Your task to perform on an android device: turn pop-ups off in chrome Image 0: 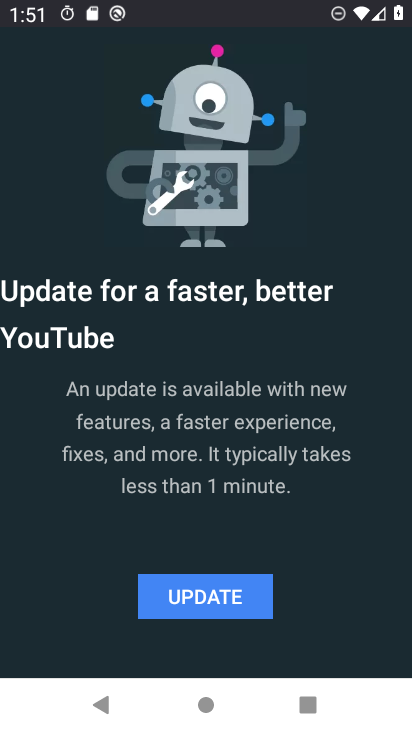
Step 0: press home button
Your task to perform on an android device: turn pop-ups off in chrome Image 1: 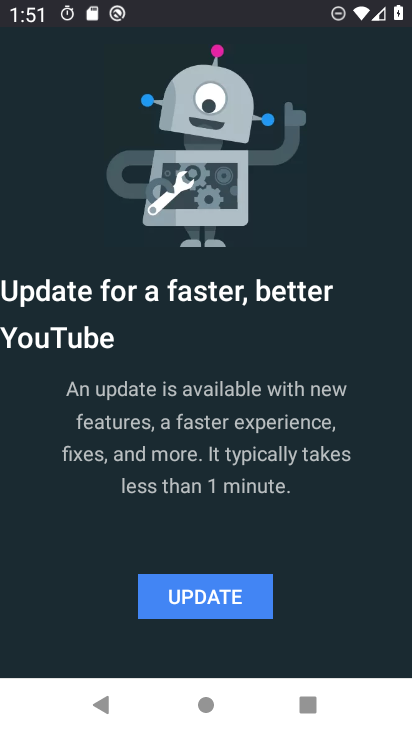
Step 1: press home button
Your task to perform on an android device: turn pop-ups off in chrome Image 2: 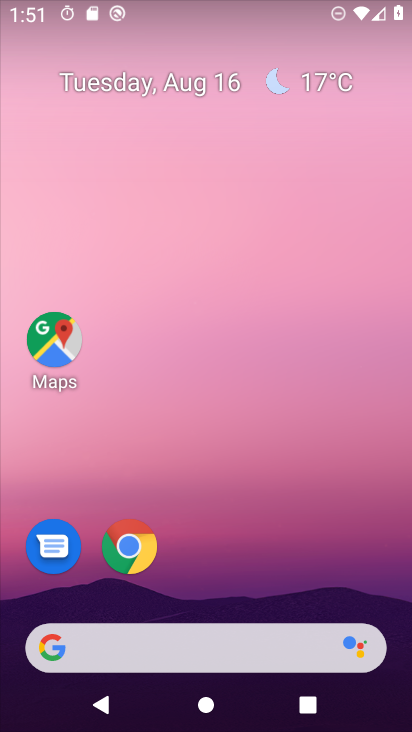
Step 2: click (128, 550)
Your task to perform on an android device: turn pop-ups off in chrome Image 3: 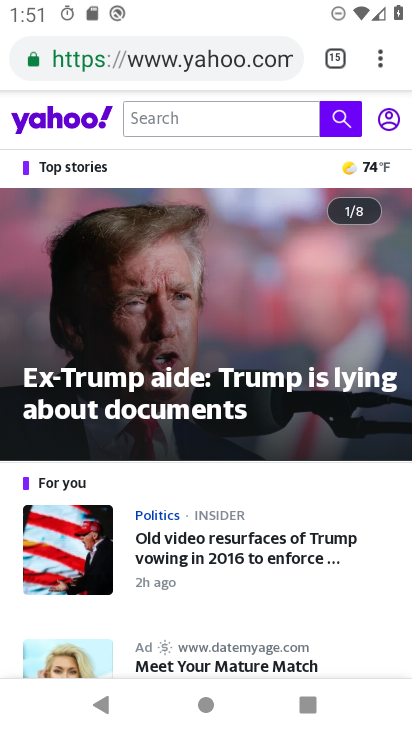
Step 3: click (380, 61)
Your task to perform on an android device: turn pop-ups off in chrome Image 4: 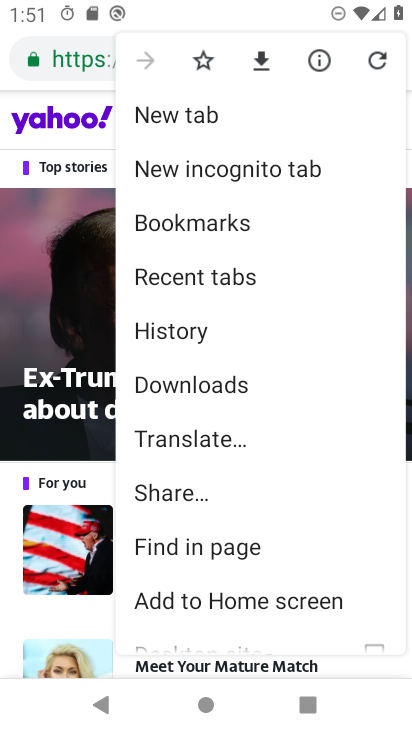
Step 4: drag from (175, 572) to (181, 241)
Your task to perform on an android device: turn pop-ups off in chrome Image 5: 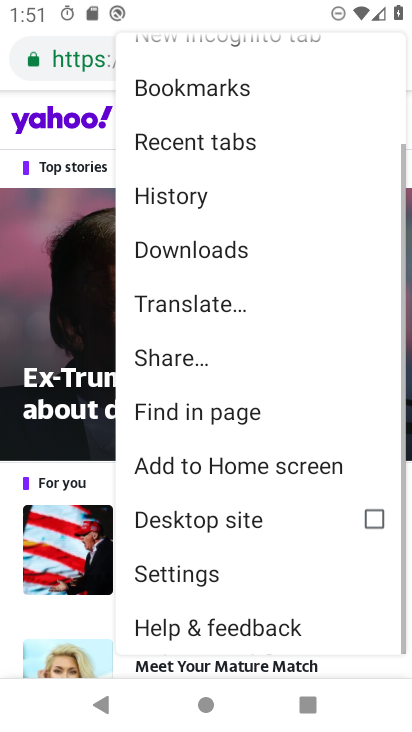
Step 5: click (159, 568)
Your task to perform on an android device: turn pop-ups off in chrome Image 6: 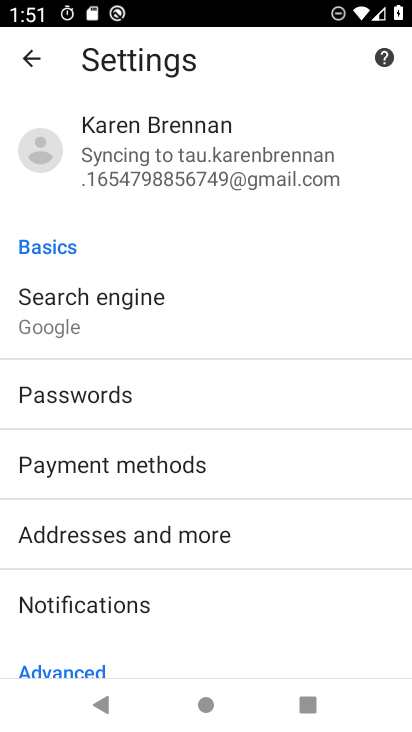
Step 6: drag from (115, 642) to (93, 228)
Your task to perform on an android device: turn pop-ups off in chrome Image 7: 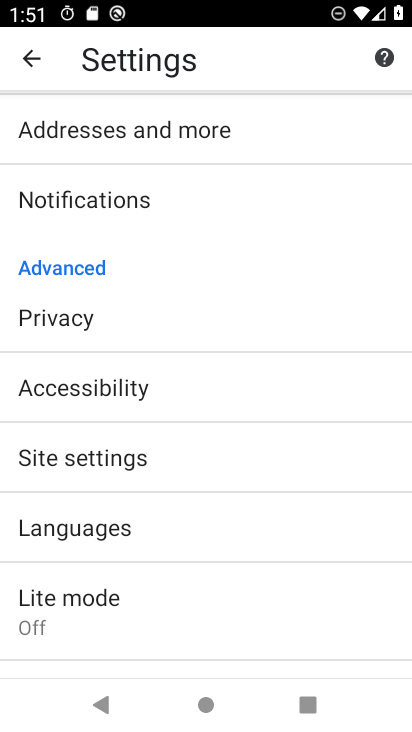
Step 7: click (122, 446)
Your task to perform on an android device: turn pop-ups off in chrome Image 8: 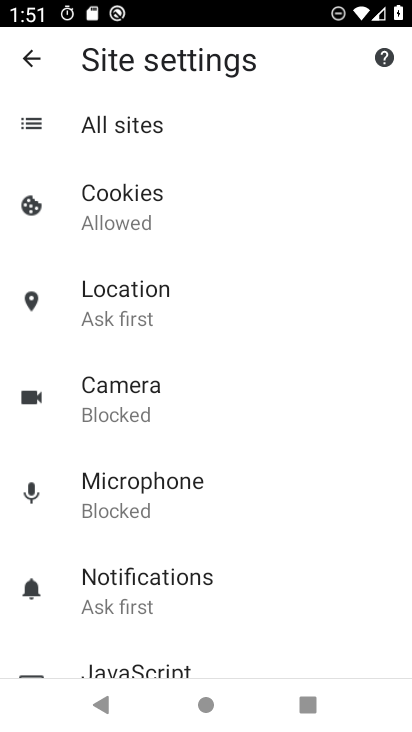
Step 8: drag from (116, 608) to (116, 321)
Your task to perform on an android device: turn pop-ups off in chrome Image 9: 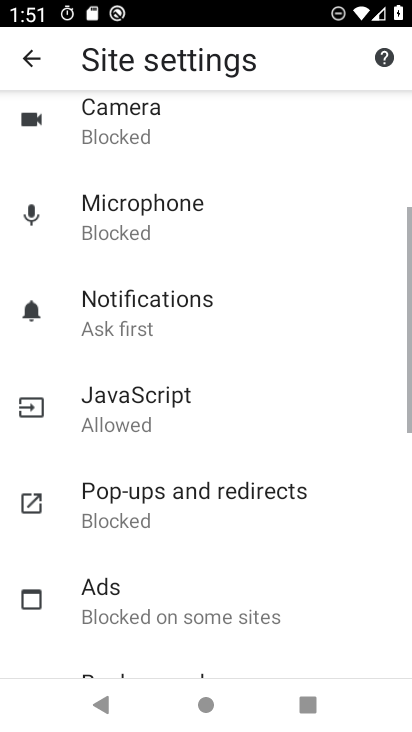
Step 9: click (115, 482)
Your task to perform on an android device: turn pop-ups off in chrome Image 10: 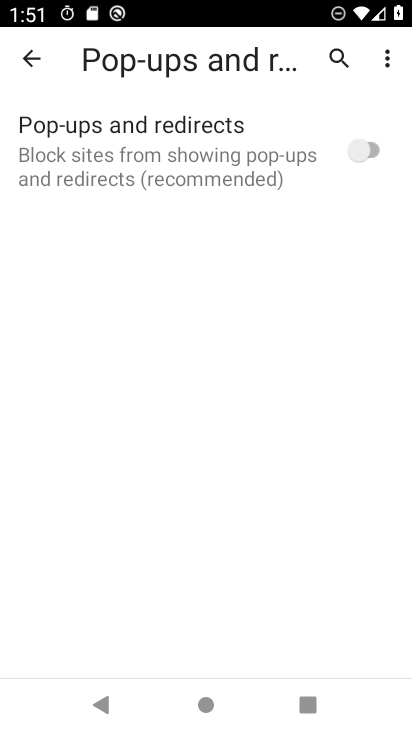
Step 10: task complete